Your task to perform on an android device: Go to Google Image 0: 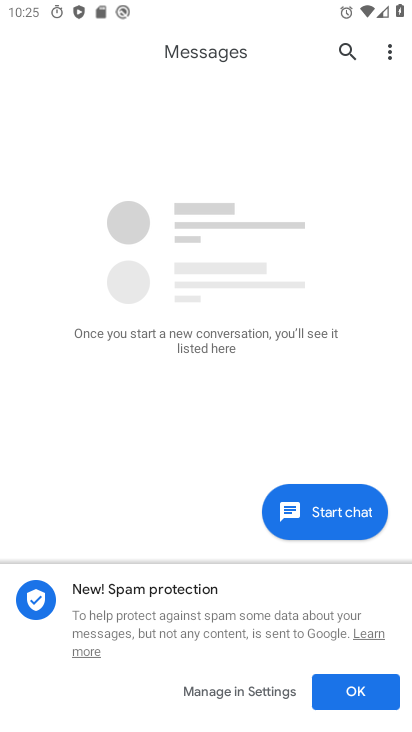
Step 0: press home button
Your task to perform on an android device: Go to Google Image 1: 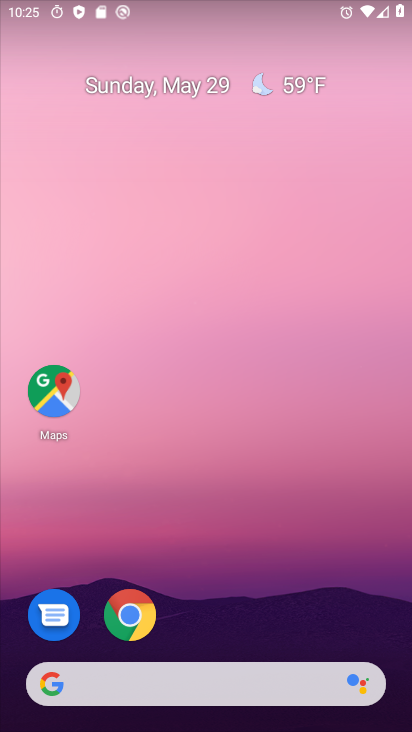
Step 1: drag from (249, 605) to (182, 103)
Your task to perform on an android device: Go to Google Image 2: 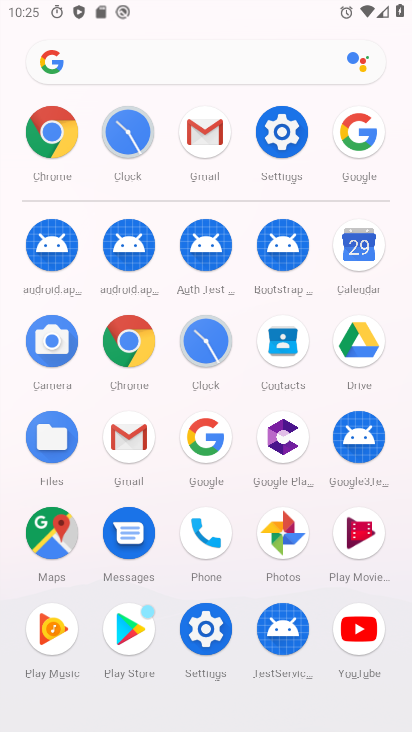
Step 2: click (360, 131)
Your task to perform on an android device: Go to Google Image 3: 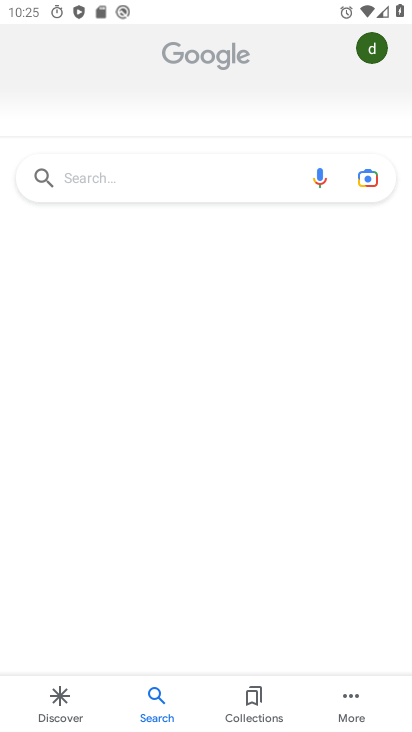
Step 3: task complete